Your task to perform on an android device: Play the last video I watched on Youtube Image 0: 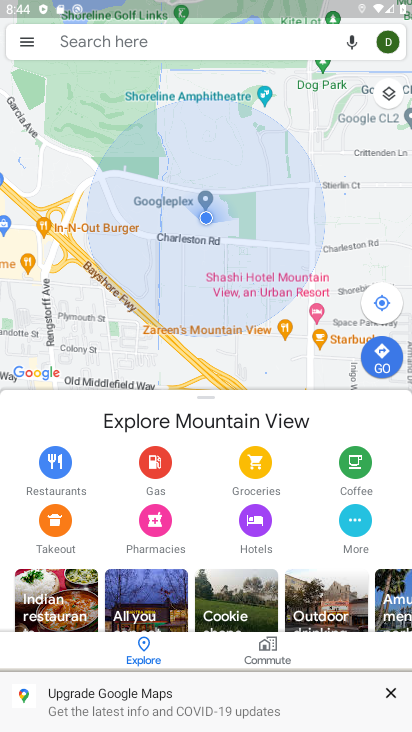
Step 0: press home button
Your task to perform on an android device: Play the last video I watched on Youtube Image 1: 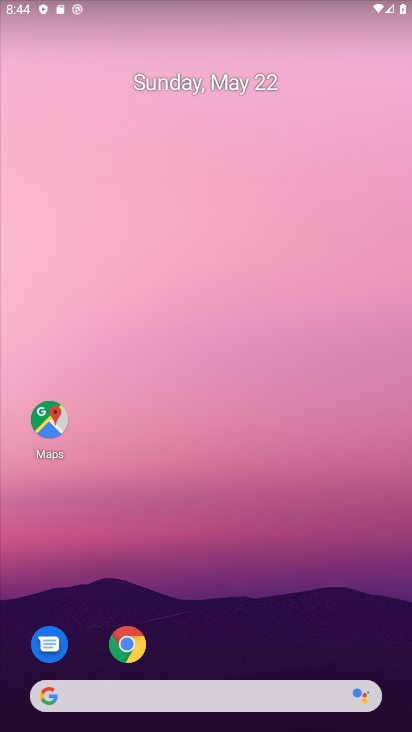
Step 1: drag from (209, 688) to (254, 257)
Your task to perform on an android device: Play the last video I watched on Youtube Image 2: 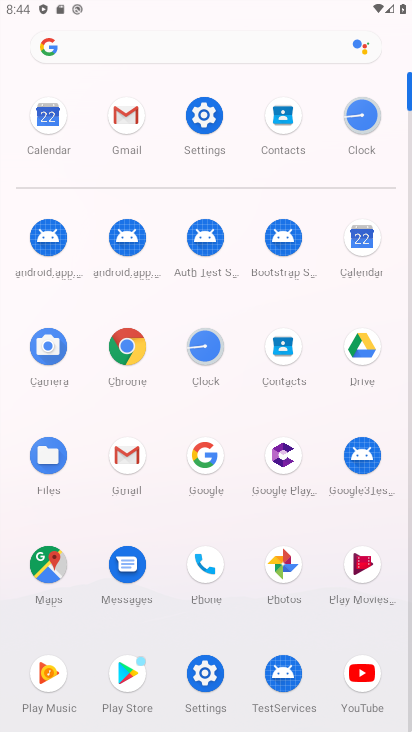
Step 2: click (353, 684)
Your task to perform on an android device: Play the last video I watched on Youtube Image 3: 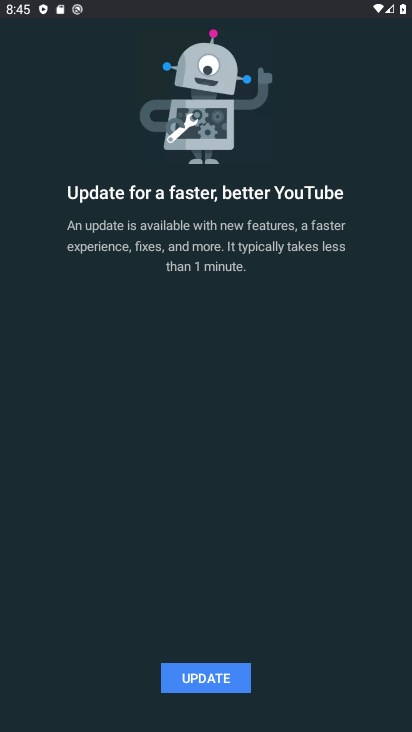
Step 3: click (229, 681)
Your task to perform on an android device: Play the last video I watched on Youtube Image 4: 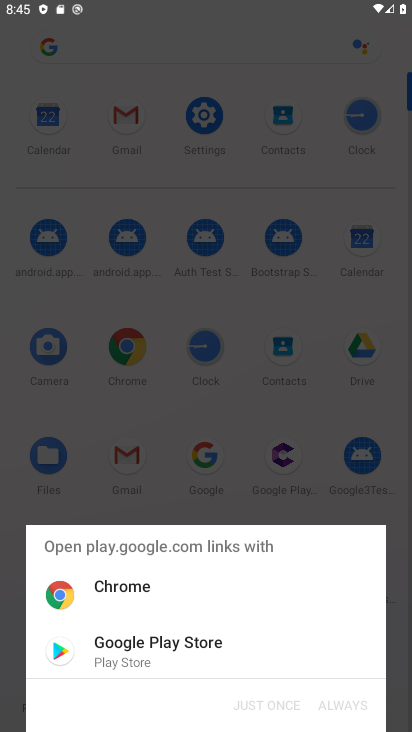
Step 4: click (200, 654)
Your task to perform on an android device: Play the last video I watched on Youtube Image 5: 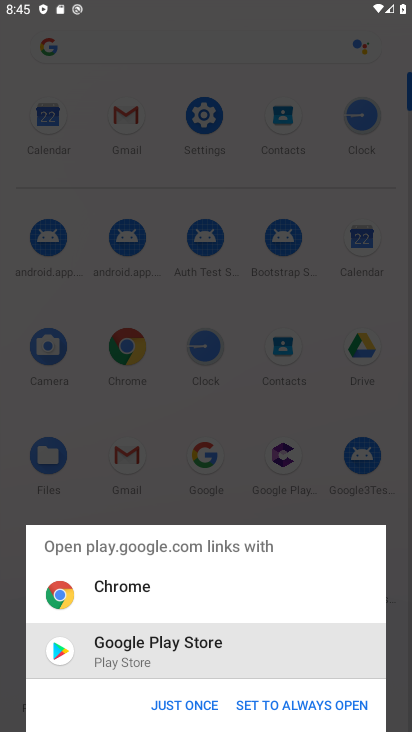
Step 5: click (188, 726)
Your task to perform on an android device: Play the last video I watched on Youtube Image 6: 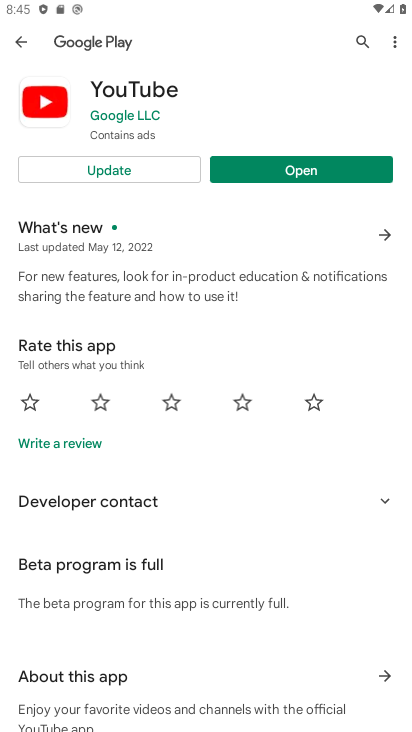
Step 6: click (188, 726)
Your task to perform on an android device: Play the last video I watched on Youtube Image 7: 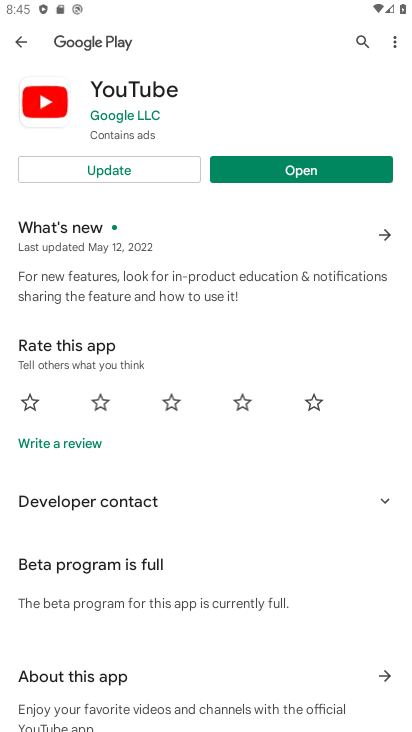
Step 7: click (266, 170)
Your task to perform on an android device: Play the last video I watched on Youtube Image 8: 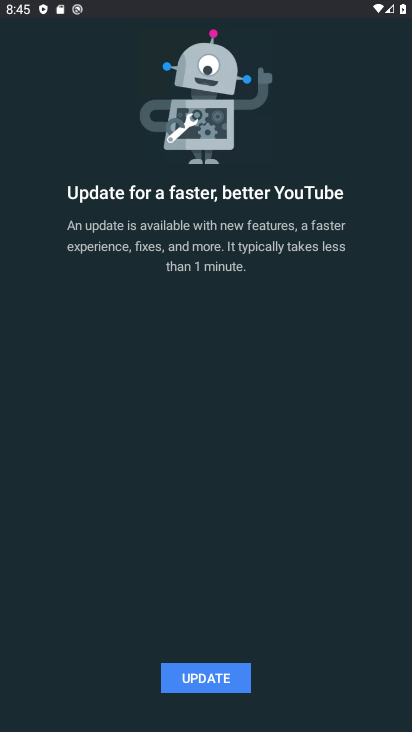
Step 8: click (215, 683)
Your task to perform on an android device: Play the last video I watched on Youtube Image 9: 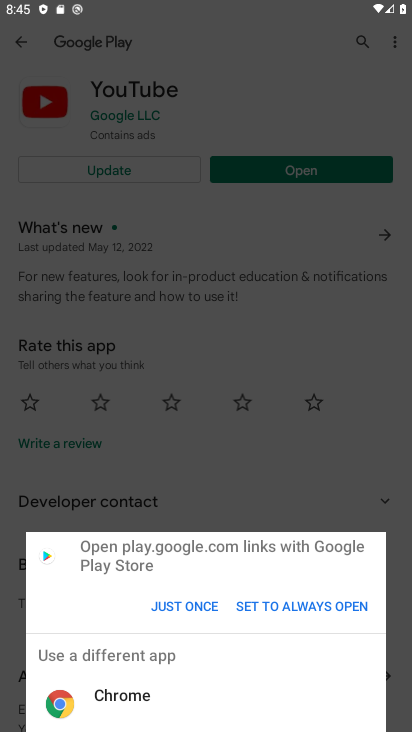
Step 9: click (214, 689)
Your task to perform on an android device: Play the last video I watched on Youtube Image 10: 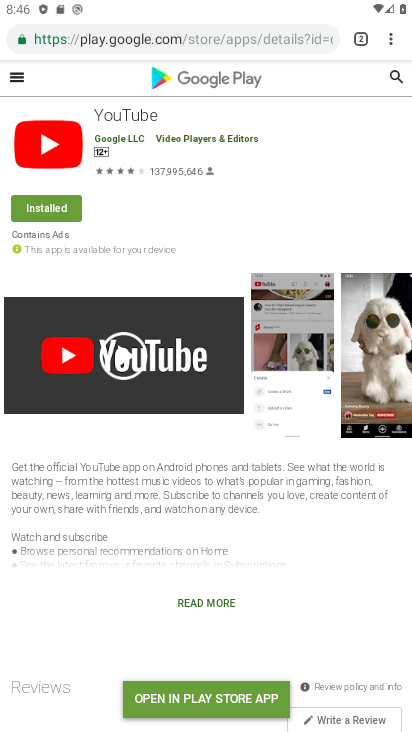
Step 10: press home button
Your task to perform on an android device: Play the last video I watched on Youtube Image 11: 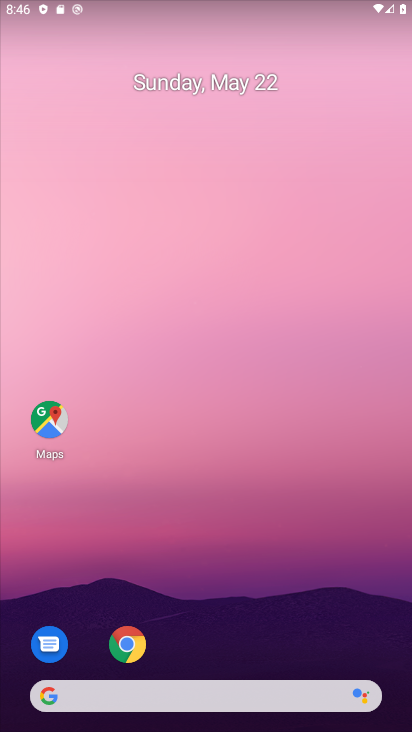
Step 11: drag from (240, 704) to (231, 303)
Your task to perform on an android device: Play the last video I watched on Youtube Image 12: 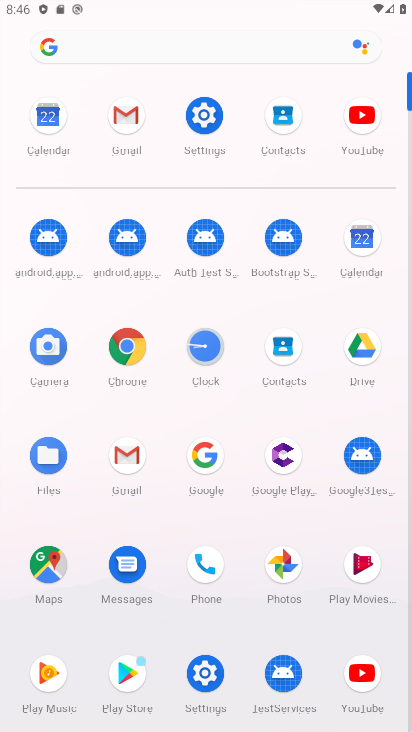
Step 12: click (367, 684)
Your task to perform on an android device: Play the last video I watched on Youtube Image 13: 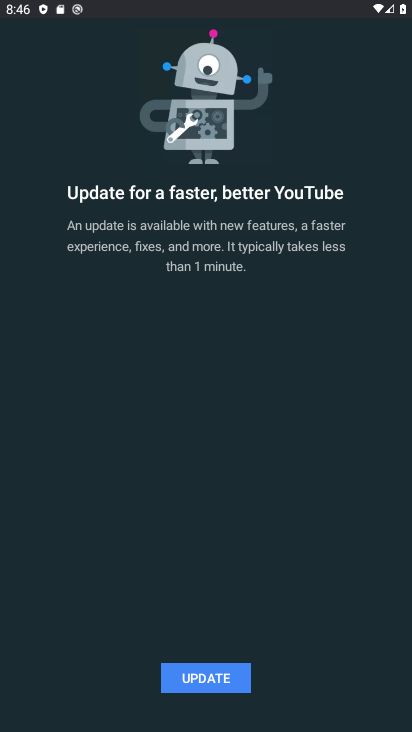
Step 13: click (222, 682)
Your task to perform on an android device: Play the last video I watched on Youtube Image 14: 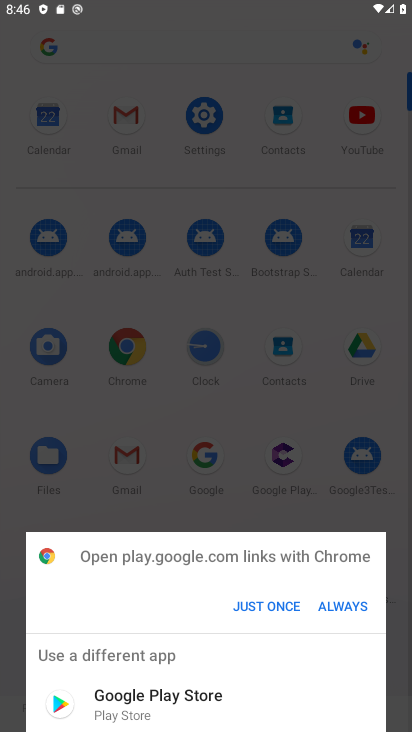
Step 14: click (185, 680)
Your task to perform on an android device: Play the last video I watched on Youtube Image 15: 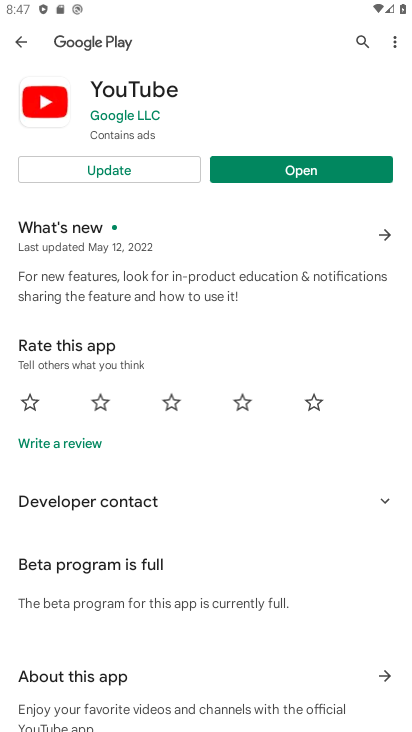
Step 15: click (113, 170)
Your task to perform on an android device: Play the last video I watched on Youtube Image 16: 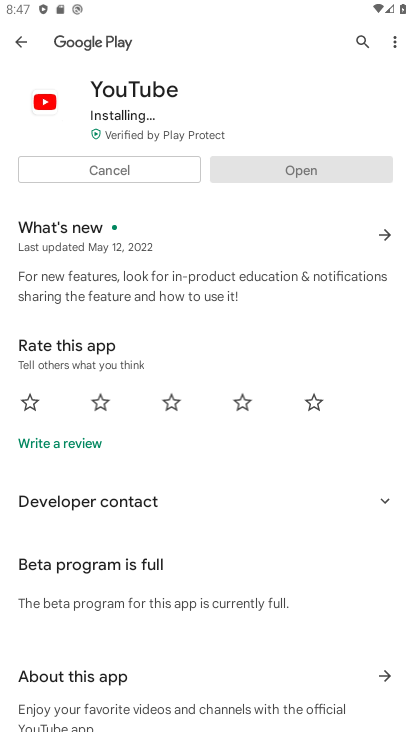
Step 16: click (100, 176)
Your task to perform on an android device: Play the last video I watched on Youtube Image 17: 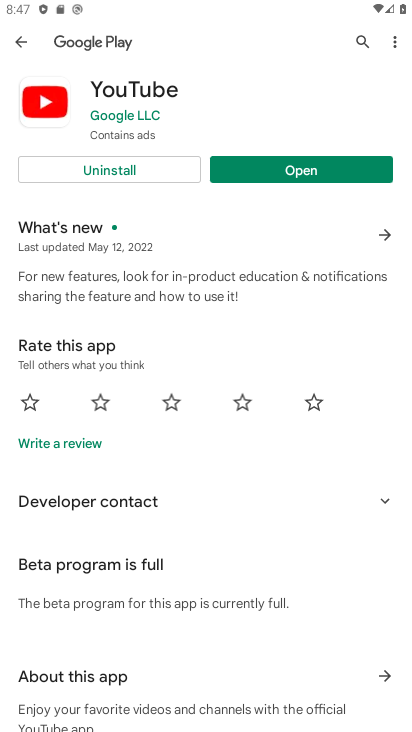
Step 17: click (243, 178)
Your task to perform on an android device: Play the last video I watched on Youtube Image 18: 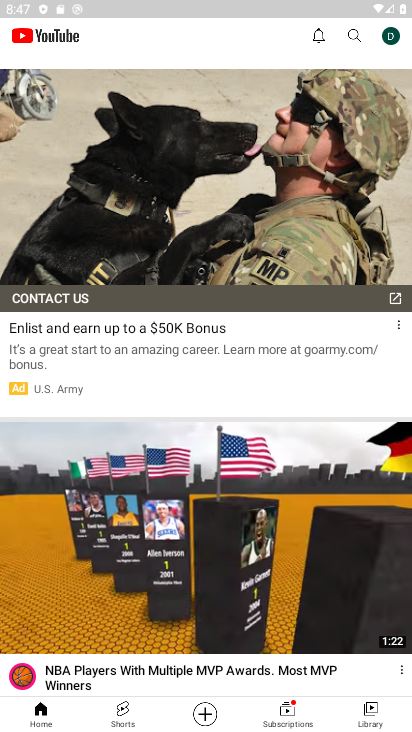
Step 18: click (371, 716)
Your task to perform on an android device: Play the last video I watched on Youtube Image 19: 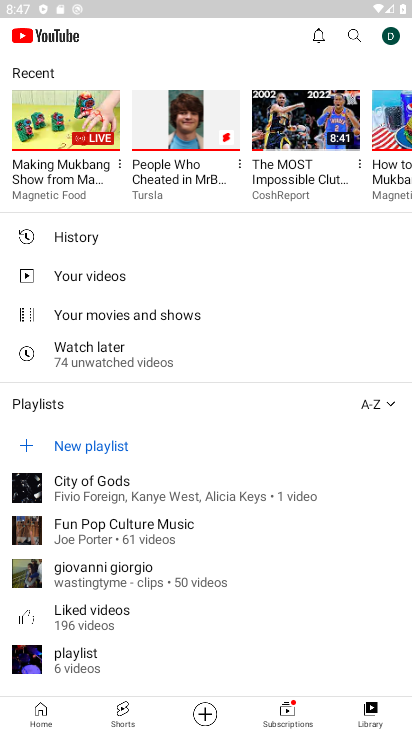
Step 19: click (67, 245)
Your task to perform on an android device: Play the last video I watched on Youtube Image 20: 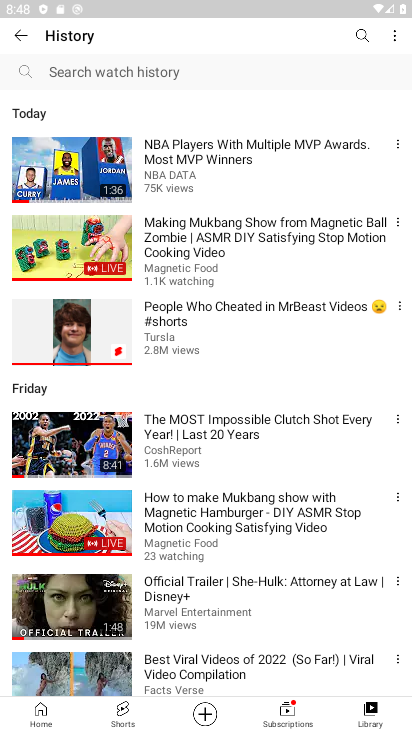
Step 20: click (227, 160)
Your task to perform on an android device: Play the last video I watched on Youtube Image 21: 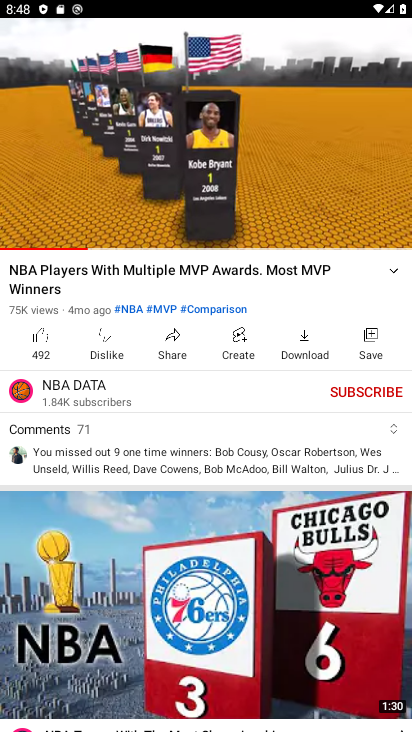
Step 21: task complete